Your task to perform on an android device: Go to battery settings Image 0: 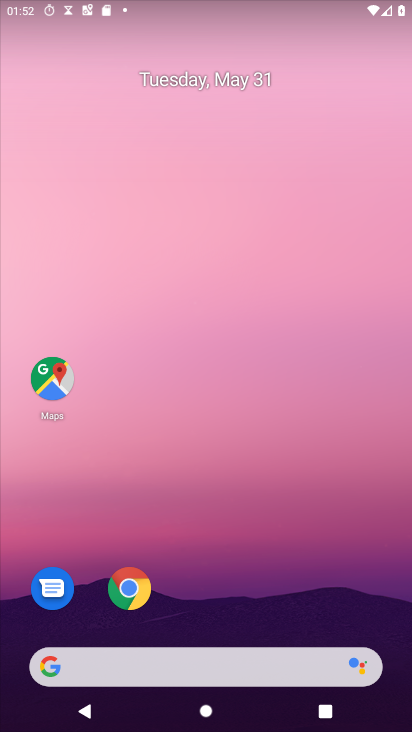
Step 0: drag from (296, 626) to (306, 81)
Your task to perform on an android device: Go to battery settings Image 1: 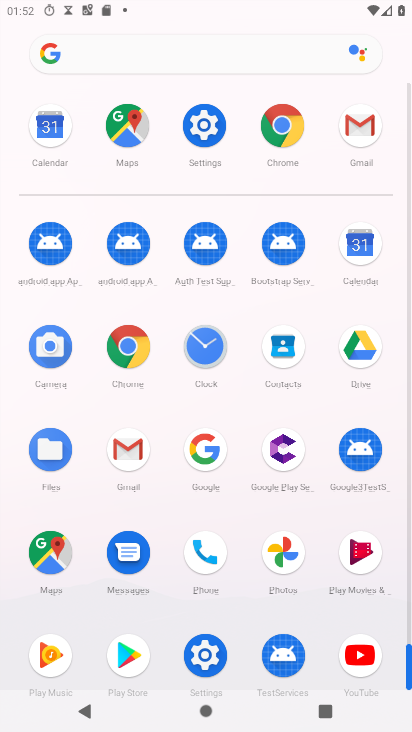
Step 1: click (200, 134)
Your task to perform on an android device: Go to battery settings Image 2: 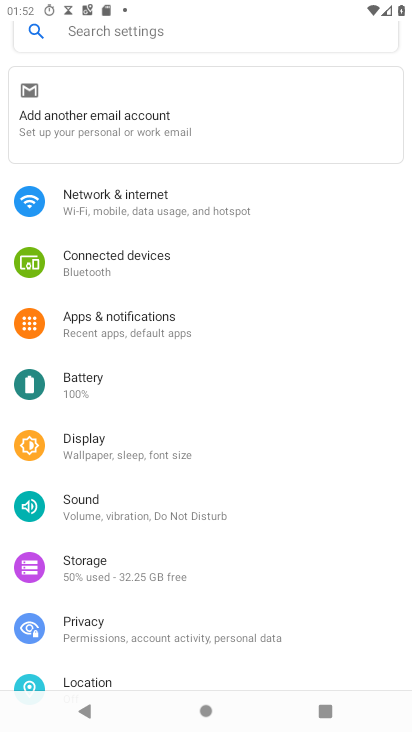
Step 2: click (127, 388)
Your task to perform on an android device: Go to battery settings Image 3: 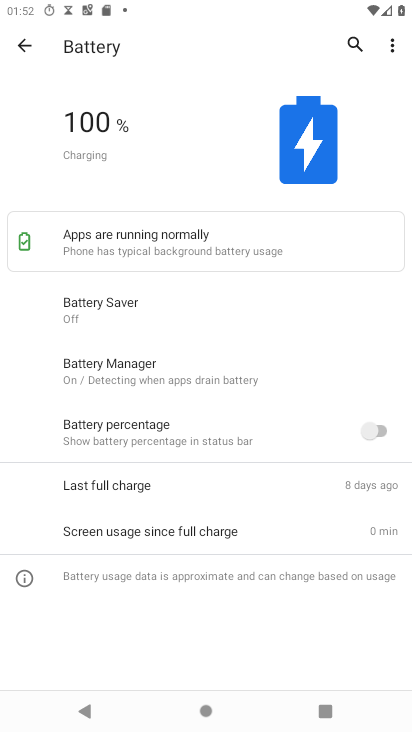
Step 3: task complete